Your task to perform on an android device: toggle sleep mode Image 0: 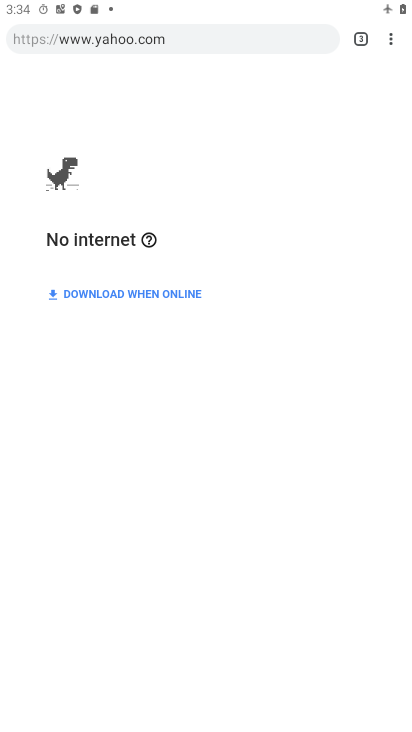
Step 0: press home button
Your task to perform on an android device: toggle sleep mode Image 1: 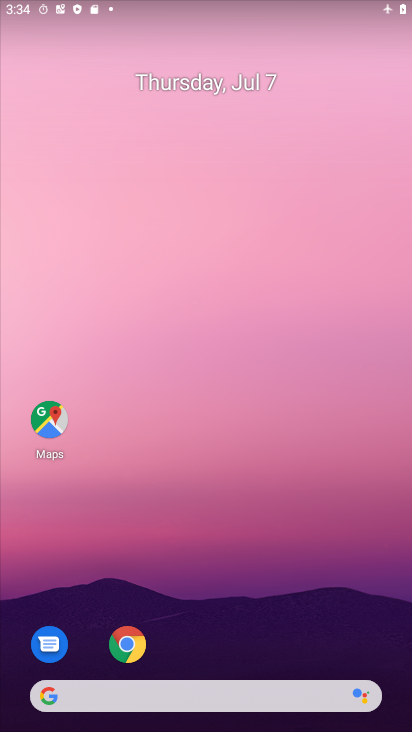
Step 1: drag from (210, 655) to (109, 58)
Your task to perform on an android device: toggle sleep mode Image 2: 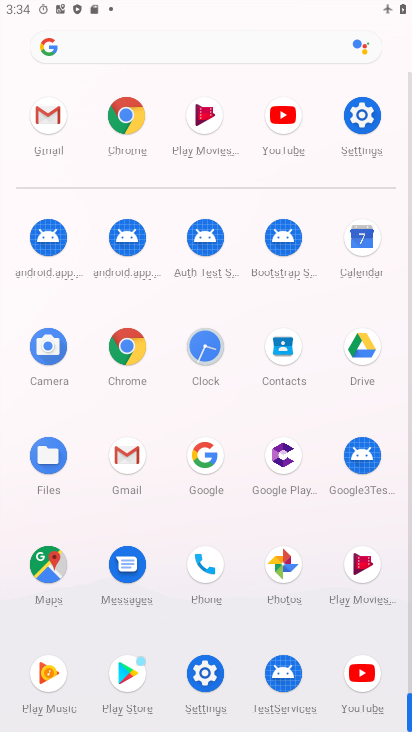
Step 2: click (358, 129)
Your task to perform on an android device: toggle sleep mode Image 3: 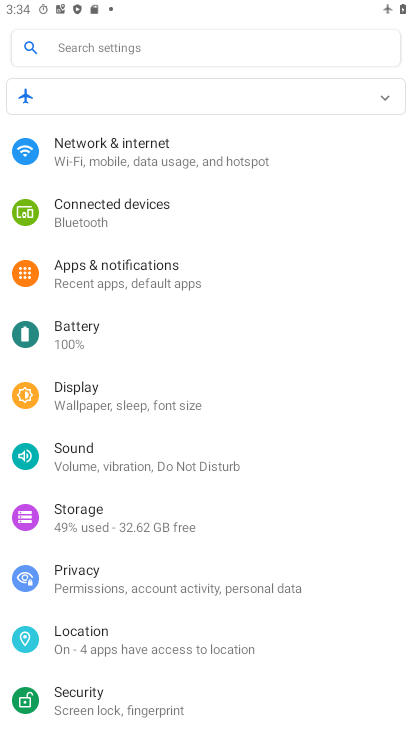
Step 3: drag from (245, 560) to (184, 144)
Your task to perform on an android device: toggle sleep mode Image 4: 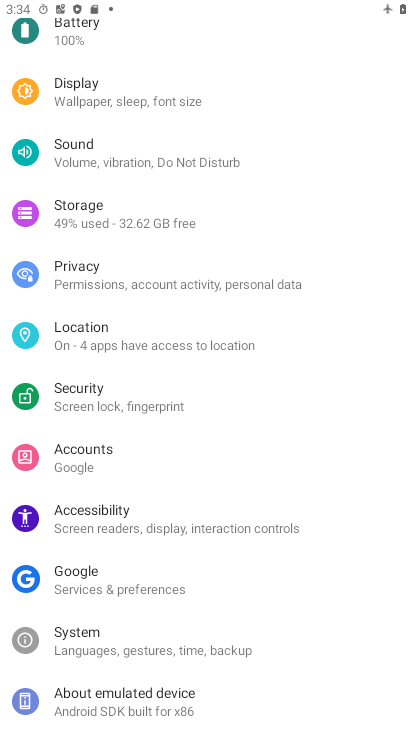
Step 4: click (152, 350)
Your task to perform on an android device: toggle sleep mode Image 5: 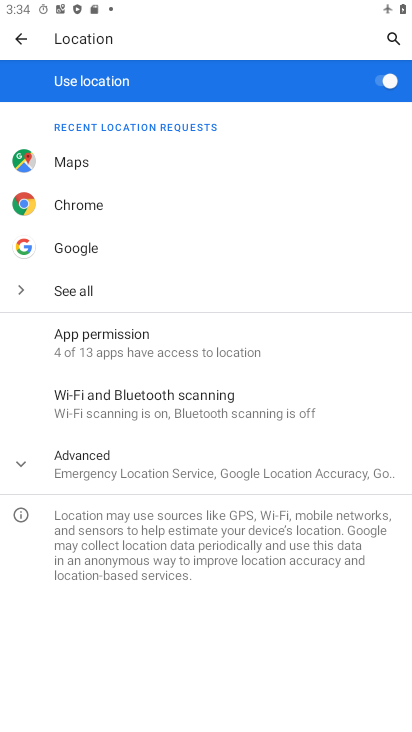
Step 5: click (17, 47)
Your task to perform on an android device: toggle sleep mode Image 6: 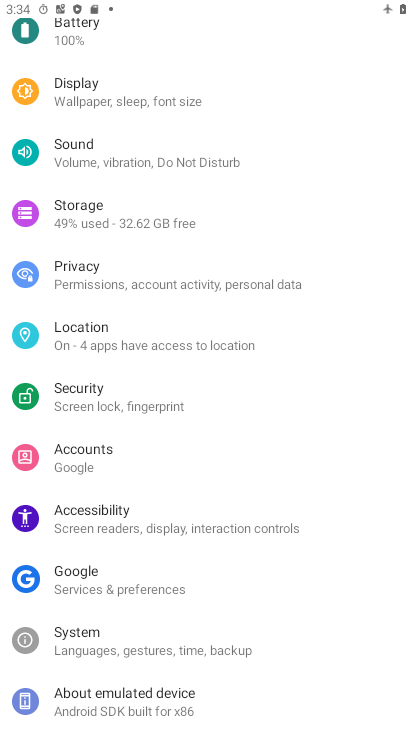
Step 6: click (23, 38)
Your task to perform on an android device: toggle sleep mode Image 7: 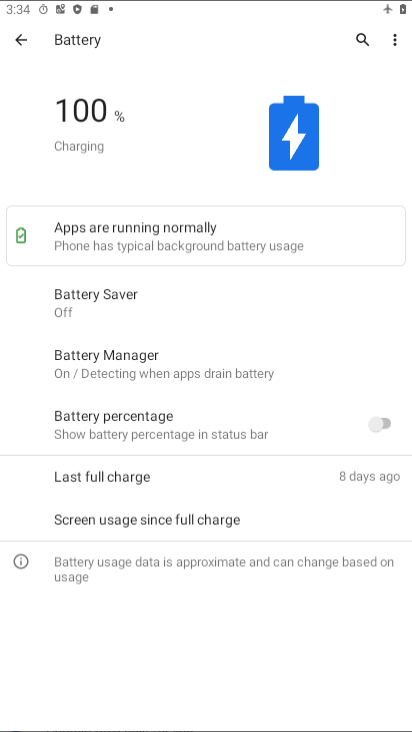
Step 7: task complete